Your task to perform on an android device: Open the Play Movies app and select the watchlist tab. Image 0: 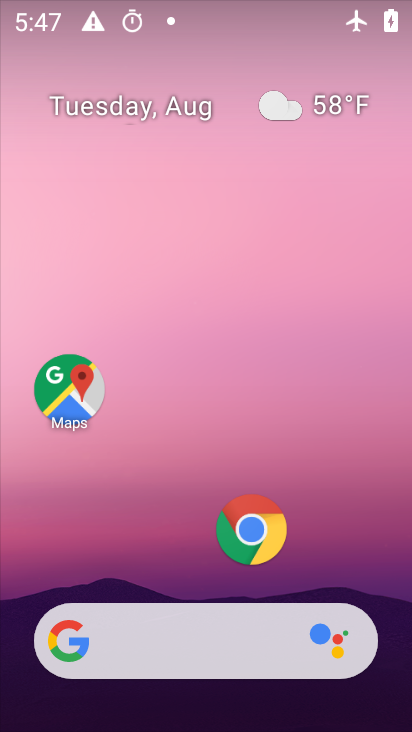
Step 0: drag from (174, 550) to (185, 134)
Your task to perform on an android device: Open the Play Movies app and select the watchlist tab. Image 1: 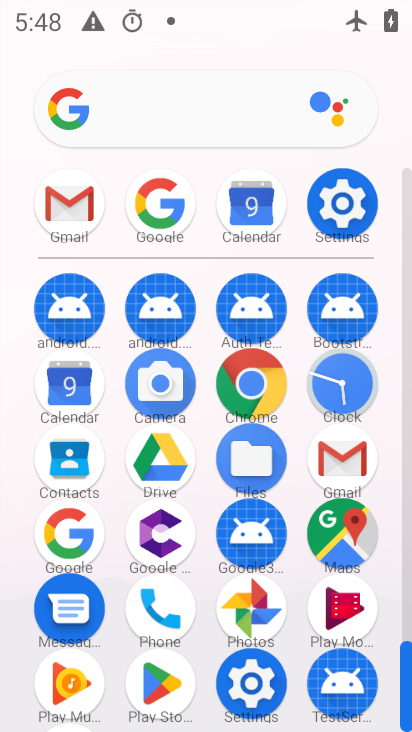
Step 1: click (358, 603)
Your task to perform on an android device: Open the Play Movies app and select the watchlist tab. Image 2: 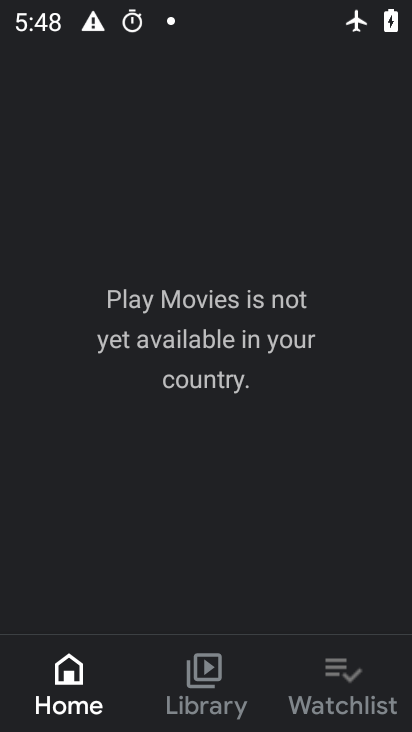
Step 2: click (326, 683)
Your task to perform on an android device: Open the Play Movies app and select the watchlist tab. Image 3: 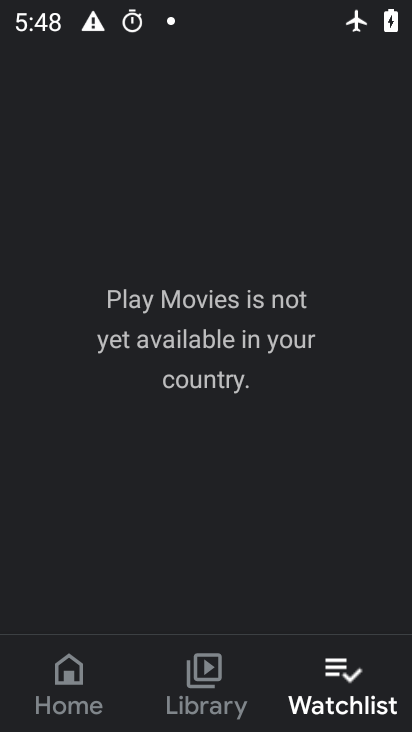
Step 3: task complete